Your task to perform on an android device: add a contact Image 0: 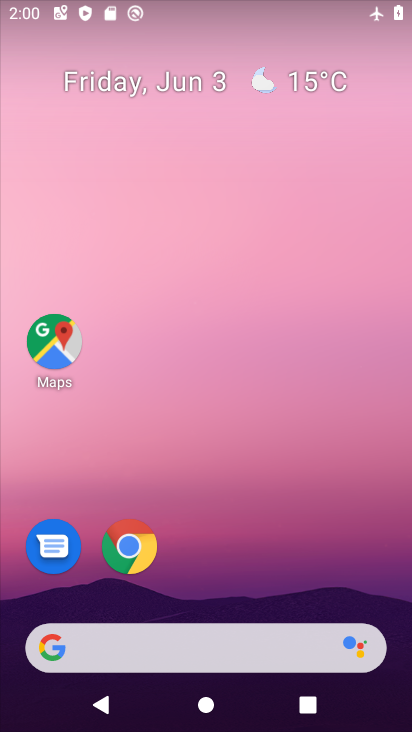
Step 0: drag from (338, 423) to (305, 0)
Your task to perform on an android device: add a contact Image 1: 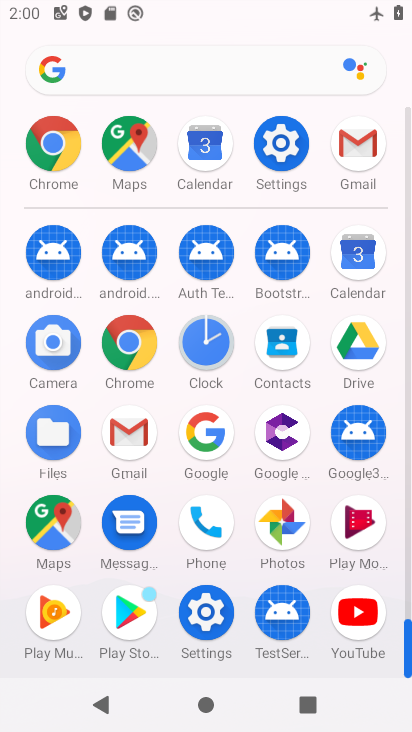
Step 1: click (216, 513)
Your task to perform on an android device: add a contact Image 2: 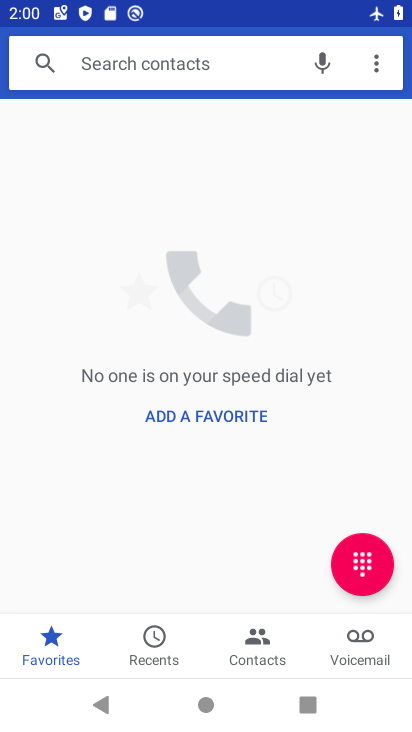
Step 2: click (252, 648)
Your task to perform on an android device: add a contact Image 3: 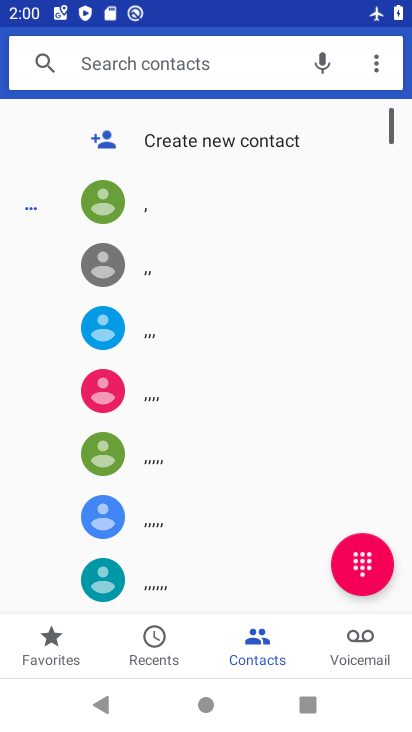
Step 3: click (170, 139)
Your task to perform on an android device: add a contact Image 4: 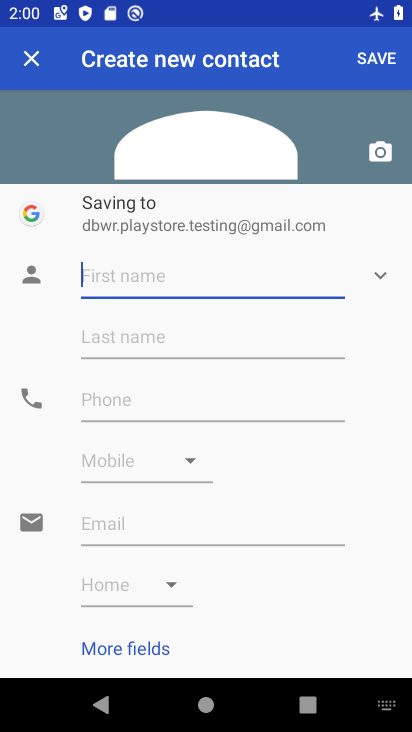
Step 4: type "hhjjjj"
Your task to perform on an android device: add a contact Image 5: 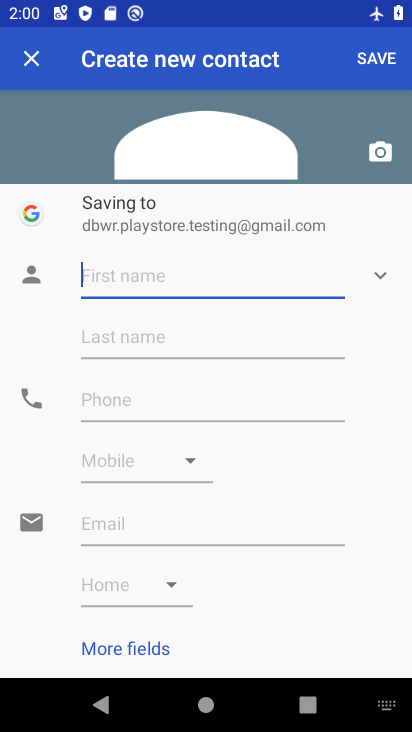
Step 5: click (118, 394)
Your task to perform on an android device: add a contact Image 6: 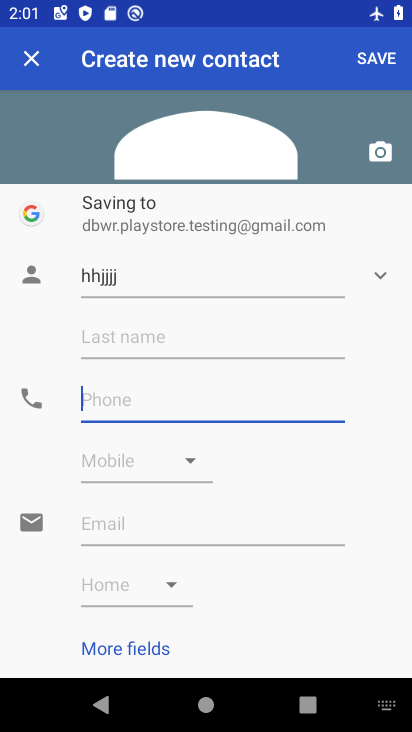
Step 6: type "678976567"
Your task to perform on an android device: add a contact Image 7: 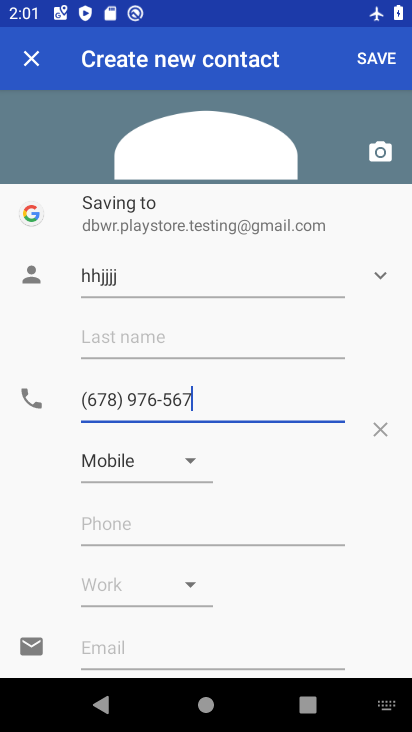
Step 7: click (365, 60)
Your task to perform on an android device: add a contact Image 8: 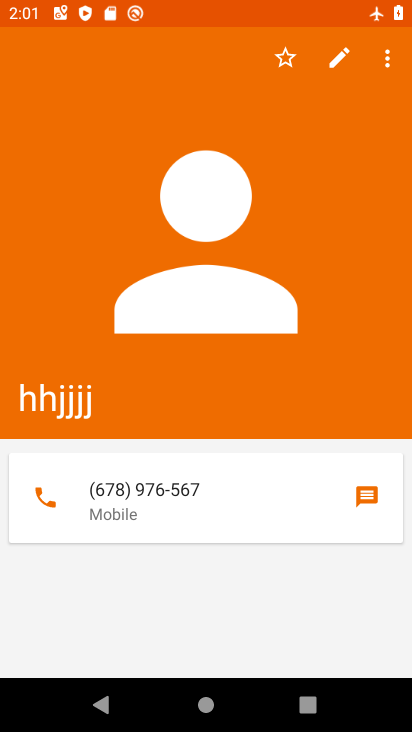
Step 8: task complete